Your task to perform on an android device: What is the recent news? Image 0: 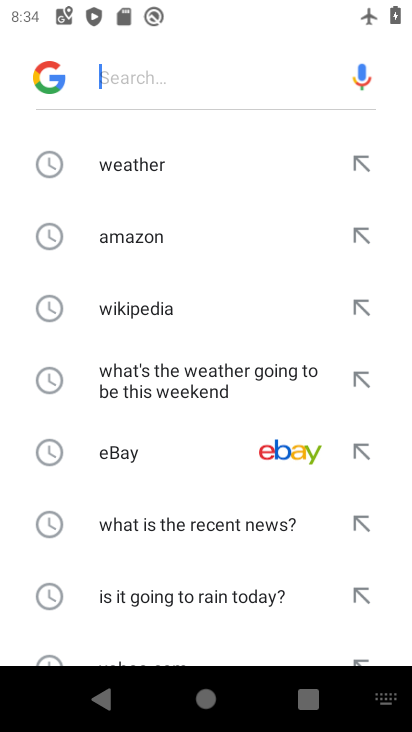
Step 0: type "recent news"
Your task to perform on an android device: What is the recent news? Image 1: 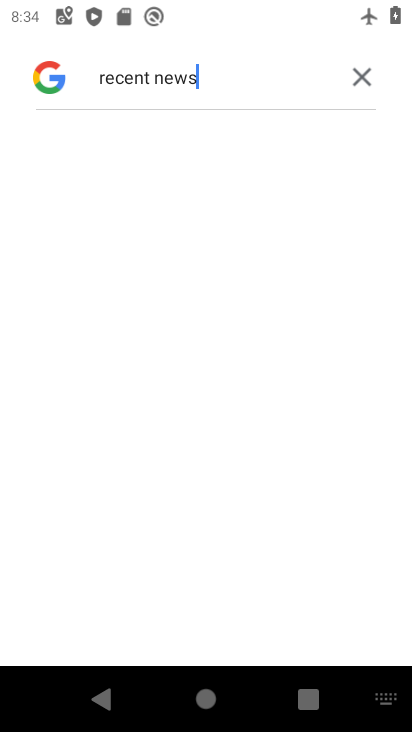
Step 1: click (154, 85)
Your task to perform on an android device: What is the recent news? Image 2: 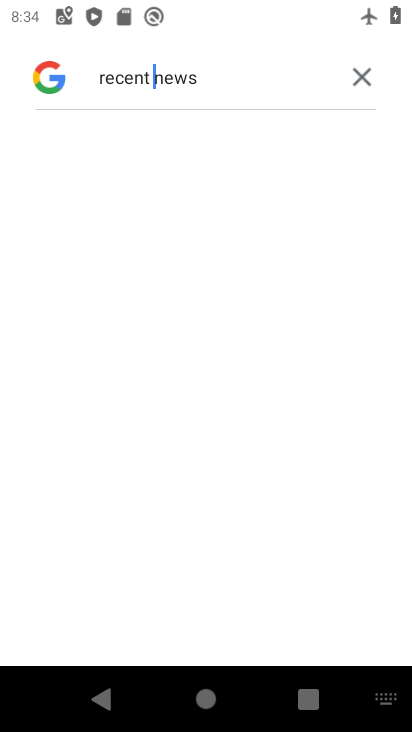
Step 2: task complete